Your task to perform on an android device: toggle sleep mode Image 0: 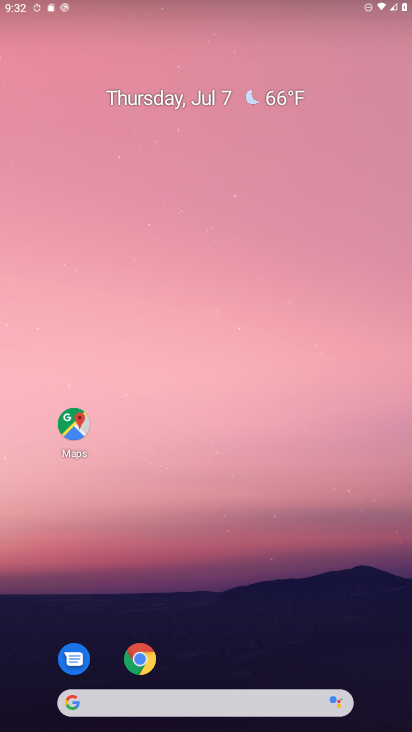
Step 0: drag from (369, 662) to (255, 56)
Your task to perform on an android device: toggle sleep mode Image 1: 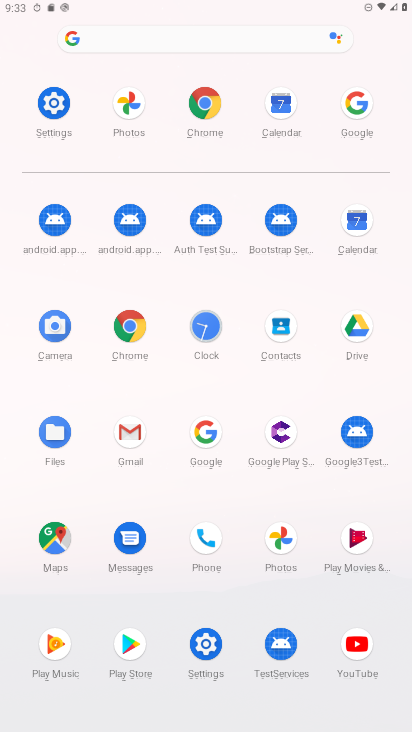
Step 1: click (210, 648)
Your task to perform on an android device: toggle sleep mode Image 2: 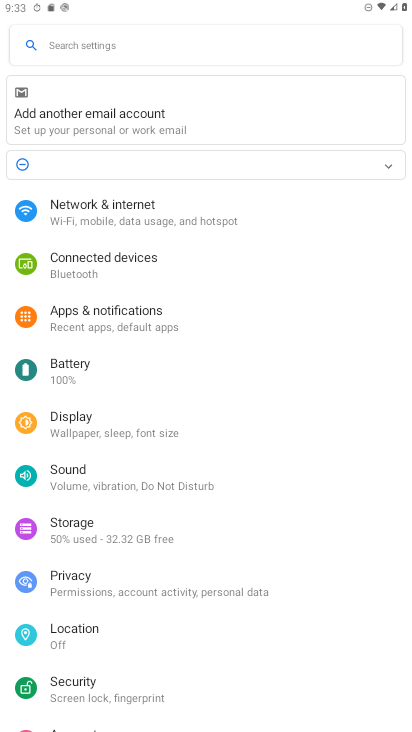
Step 2: task complete